Your task to perform on an android device: turn off data saver in the chrome app Image 0: 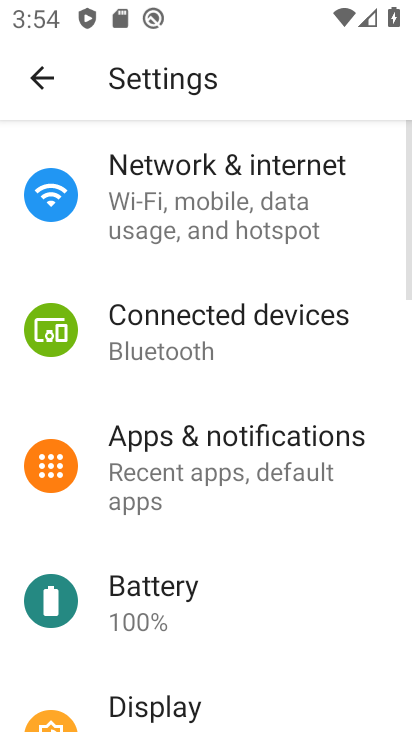
Step 0: press home button
Your task to perform on an android device: turn off data saver in the chrome app Image 1: 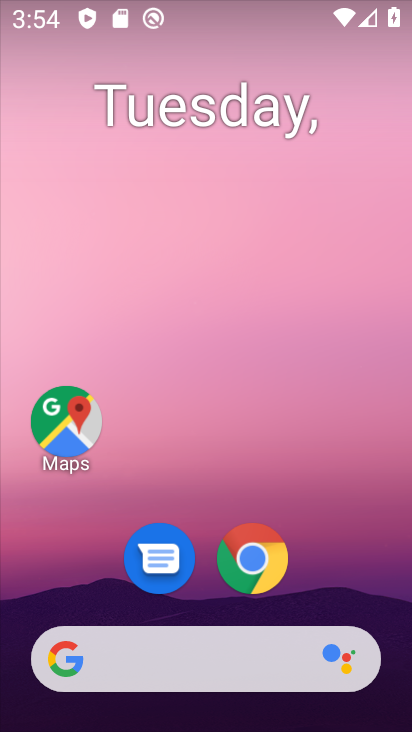
Step 1: drag from (110, 488) to (207, 116)
Your task to perform on an android device: turn off data saver in the chrome app Image 2: 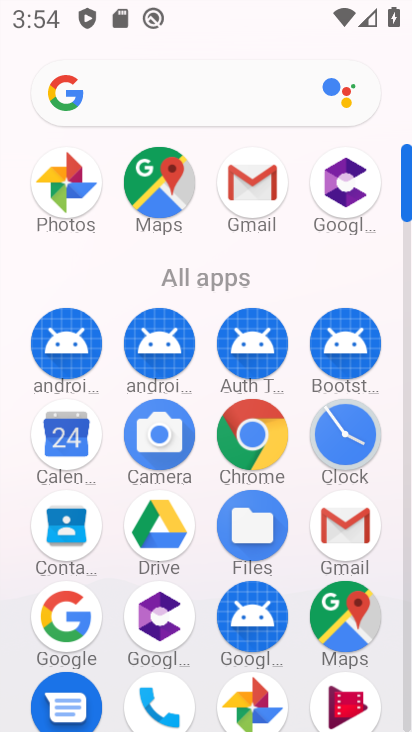
Step 2: click (259, 455)
Your task to perform on an android device: turn off data saver in the chrome app Image 3: 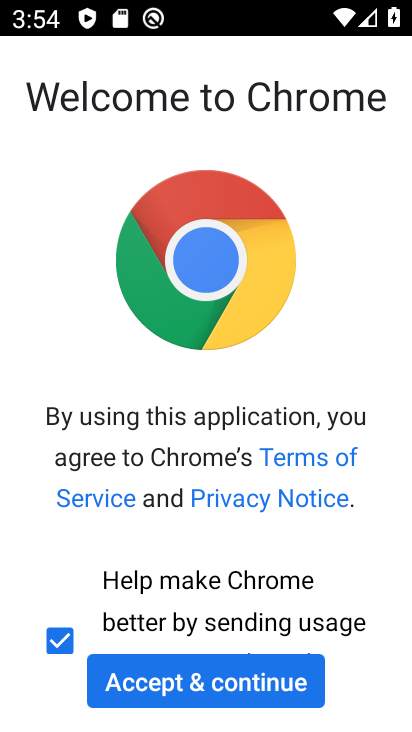
Step 3: click (279, 682)
Your task to perform on an android device: turn off data saver in the chrome app Image 4: 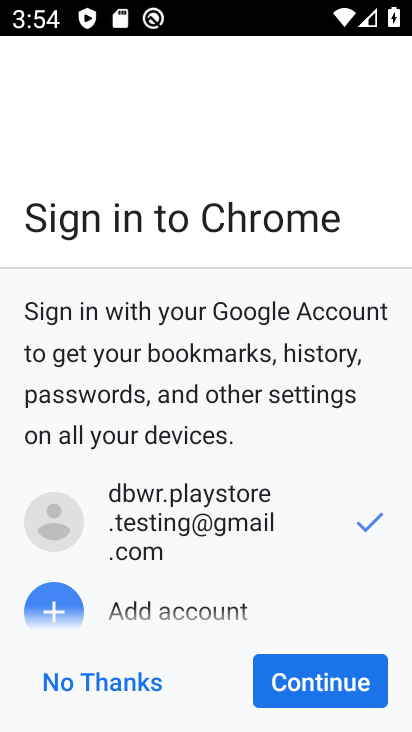
Step 4: click (296, 694)
Your task to perform on an android device: turn off data saver in the chrome app Image 5: 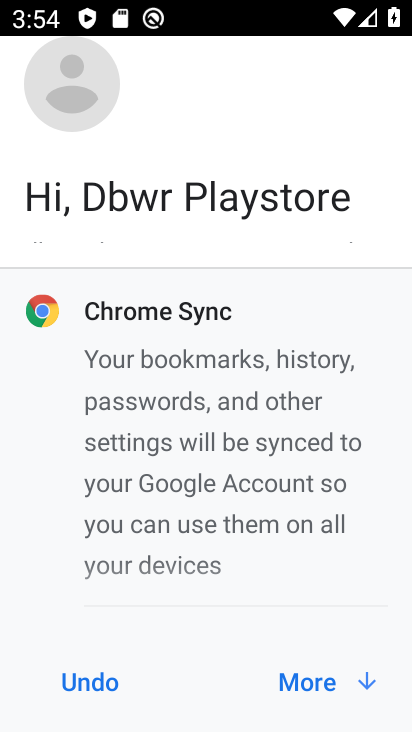
Step 5: click (295, 687)
Your task to perform on an android device: turn off data saver in the chrome app Image 6: 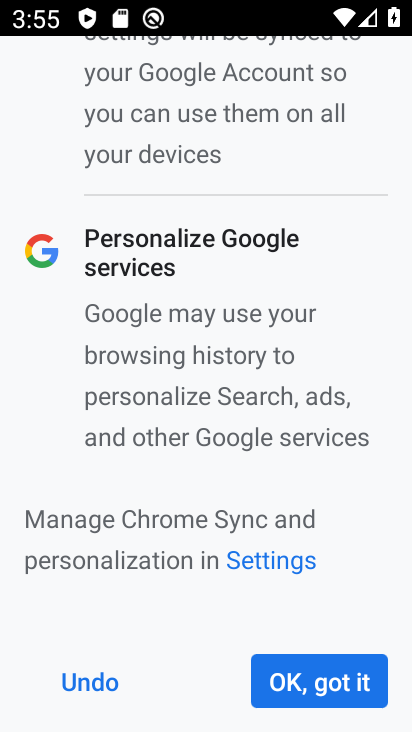
Step 6: click (357, 731)
Your task to perform on an android device: turn off data saver in the chrome app Image 7: 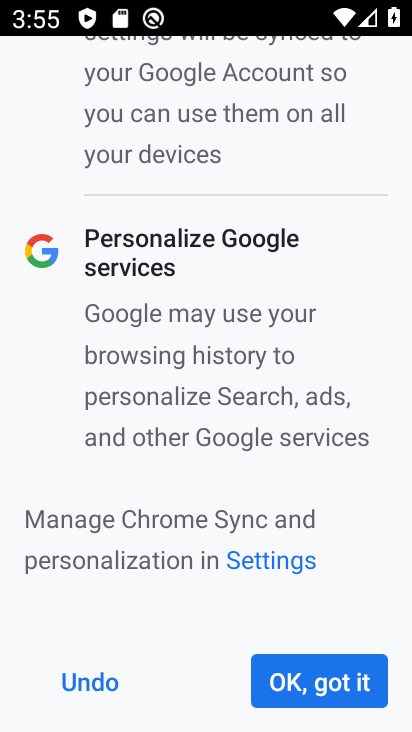
Step 7: click (350, 692)
Your task to perform on an android device: turn off data saver in the chrome app Image 8: 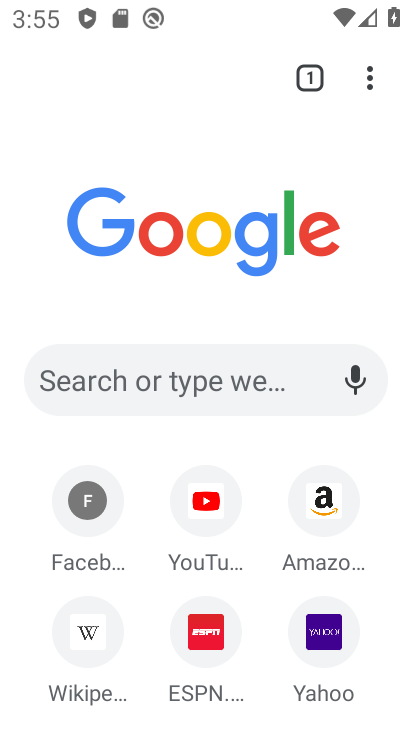
Step 8: drag from (368, 73) to (211, 614)
Your task to perform on an android device: turn off data saver in the chrome app Image 9: 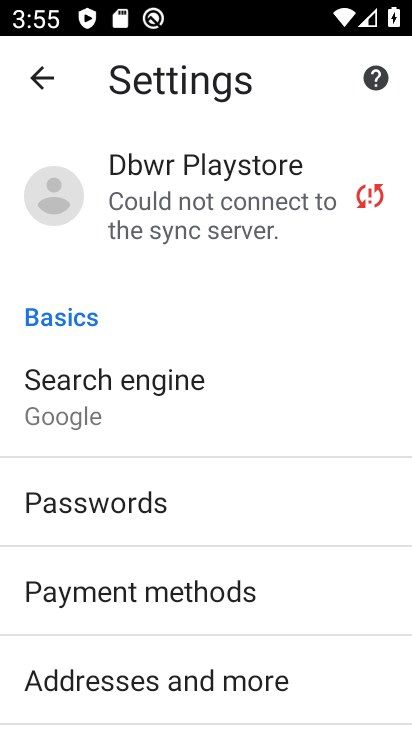
Step 9: drag from (207, 706) to (349, 284)
Your task to perform on an android device: turn off data saver in the chrome app Image 10: 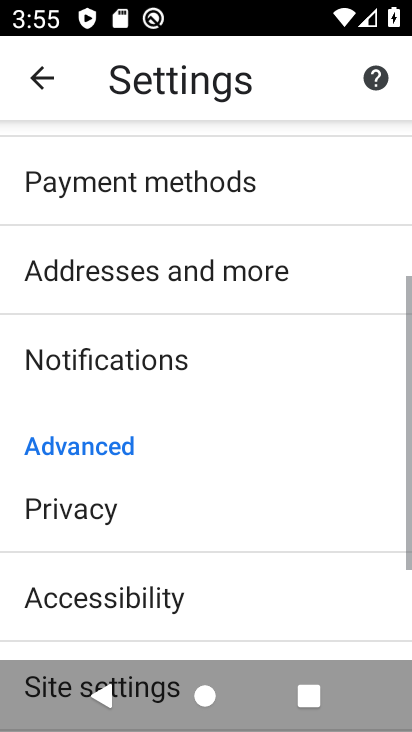
Step 10: drag from (233, 552) to (327, 227)
Your task to perform on an android device: turn off data saver in the chrome app Image 11: 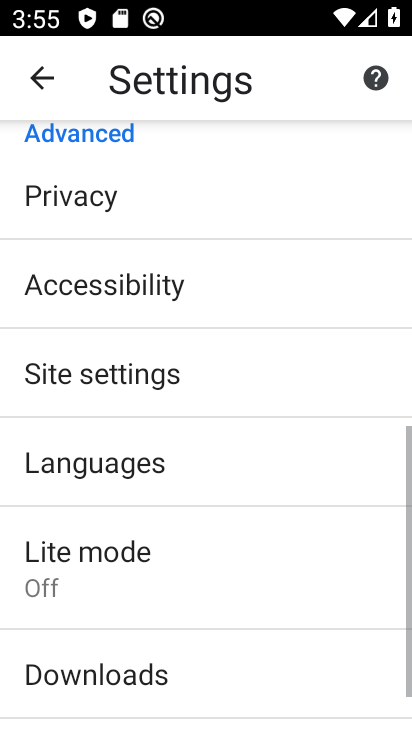
Step 11: click (141, 565)
Your task to perform on an android device: turn off data saver in the chrome app Image 12: 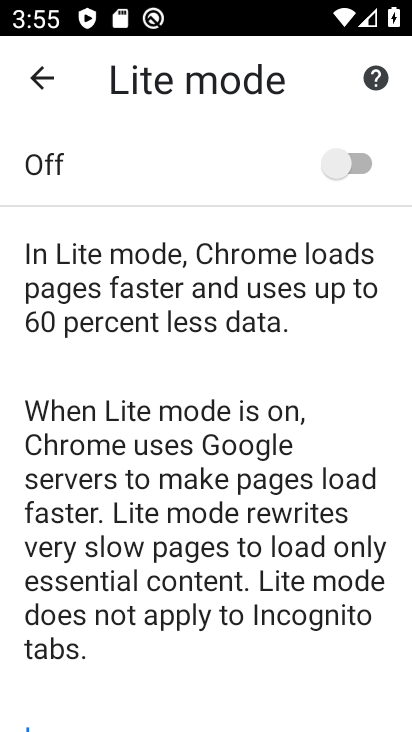
Step 12: task complete